Your task to perform on an android device: Go to internet settings Image 0: 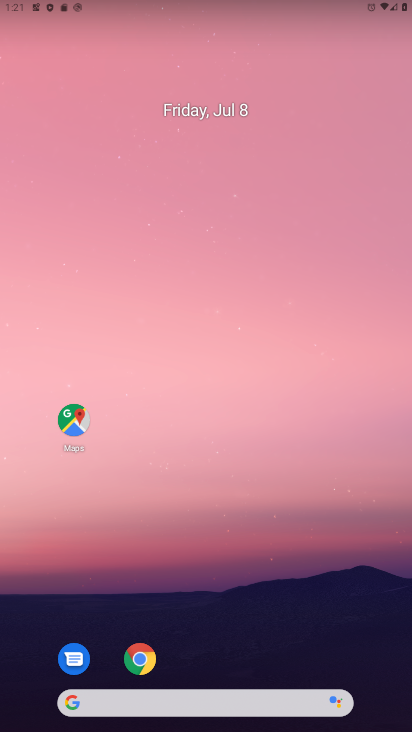
Step 0: drag from (267, 588) to (120, 132)
Your task to perform on an android device: Go to internet settings Image 1: 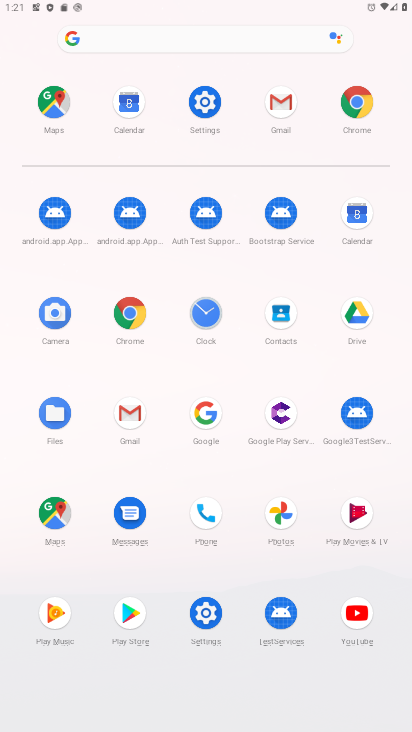
Step 1: click (205, 102)
Your task to perform on an android device: Go to internet settings Image 2: 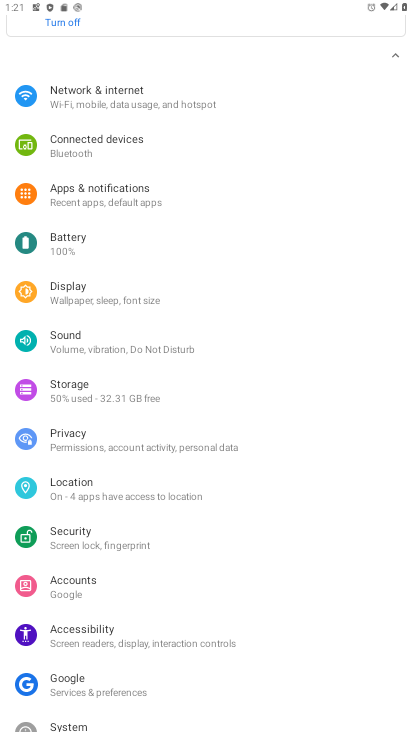
Step 2: click (108, 93)
Your task to perform on an android device: Go to internet settings Image 3: 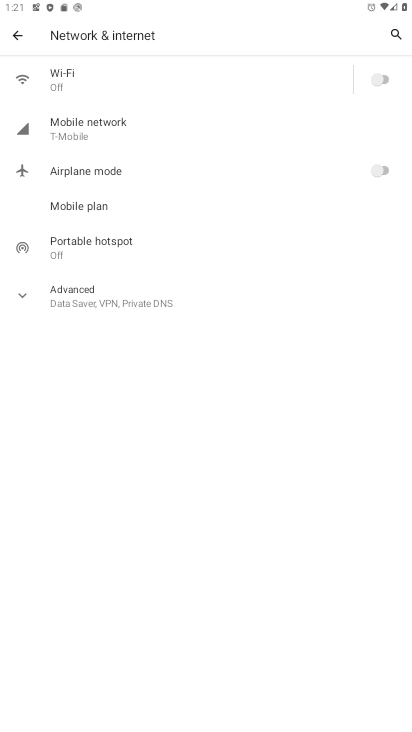
Step 3: click (102, 119)
Your task to perform on an android device: Go to internet settings Image 4: 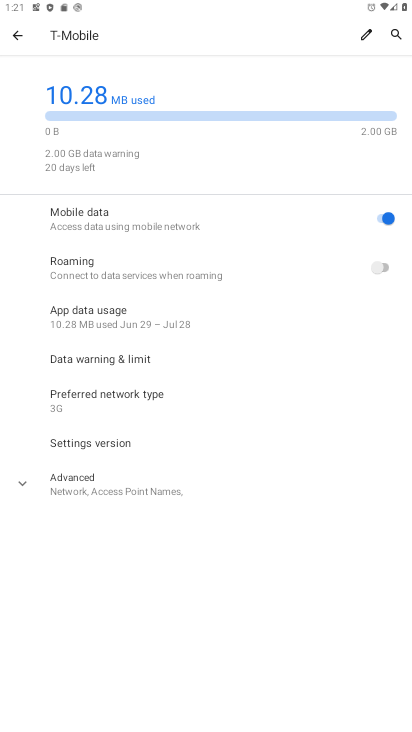
Step 4: task complete